Your task to perform on an android device: Open display settings Image 0: 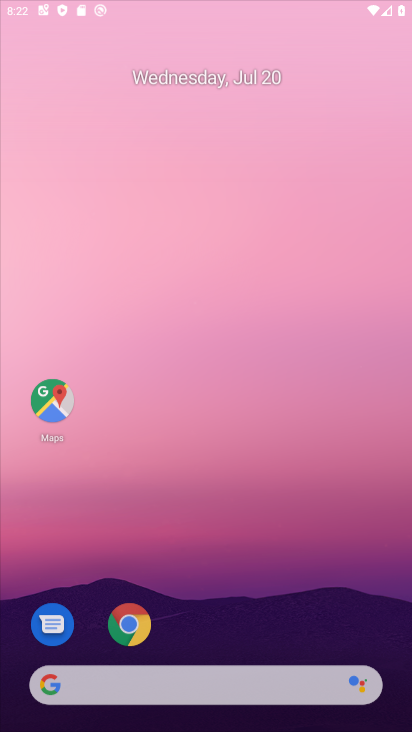
Step 0: press home button
Your task to perform on an android device: Open display settings Image 1: 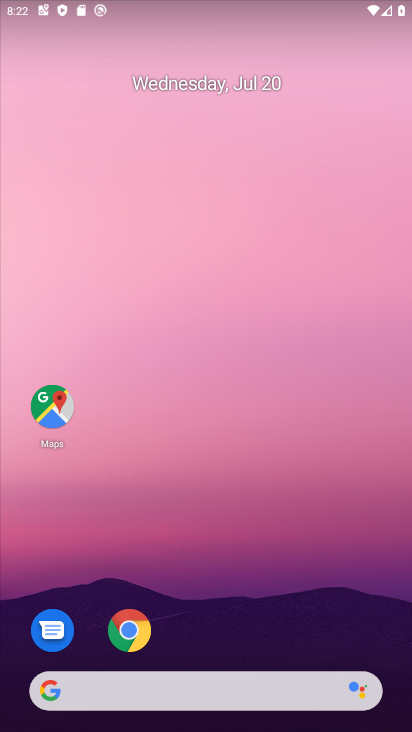
Step 1: drag from (399, 710) to (364, 85)
Your task to perform on an android device: Open display settings Image 2: 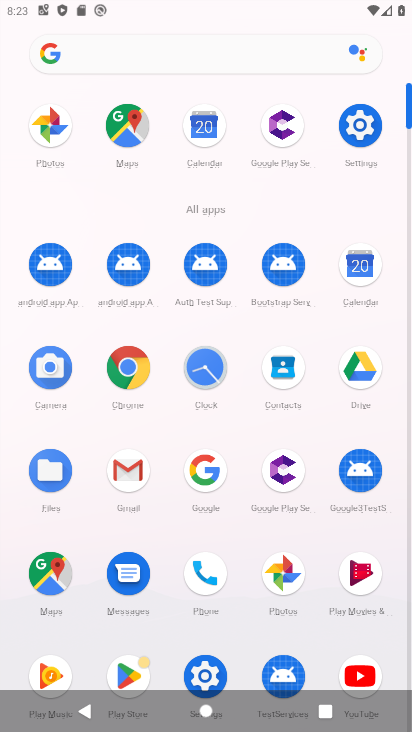
Step 2: click (353, 132)
Your task to perform on an android device: Open display settings Image 3: 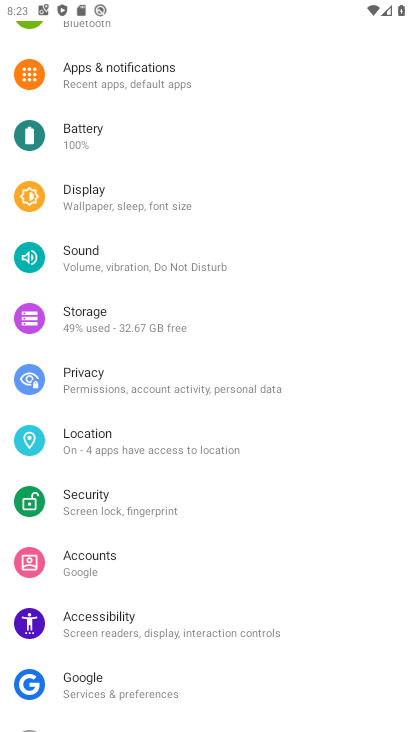
Step 3: click (85, 190)
Your task to perform on an android device: Open display settings Image 4: 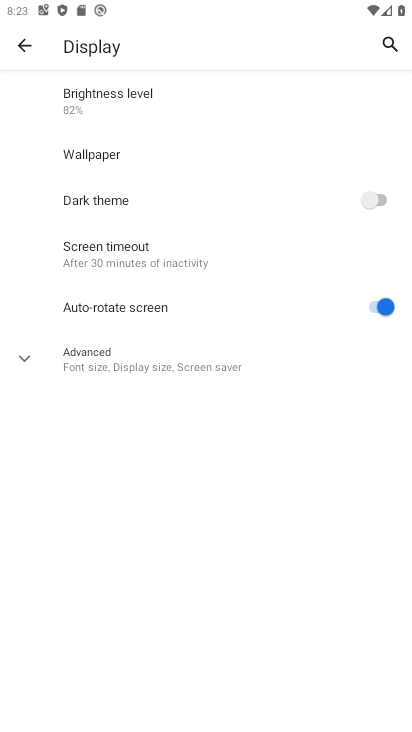
Step 4: click (35, 353)
Your task to perform on an android device: Open display settings Image 5: 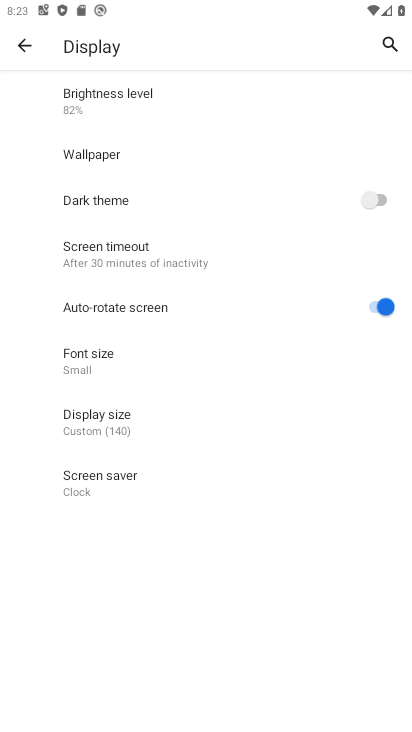
Step 5: task complete